Your task to perform on an android device: Do I have any events this weekend? Image 0: 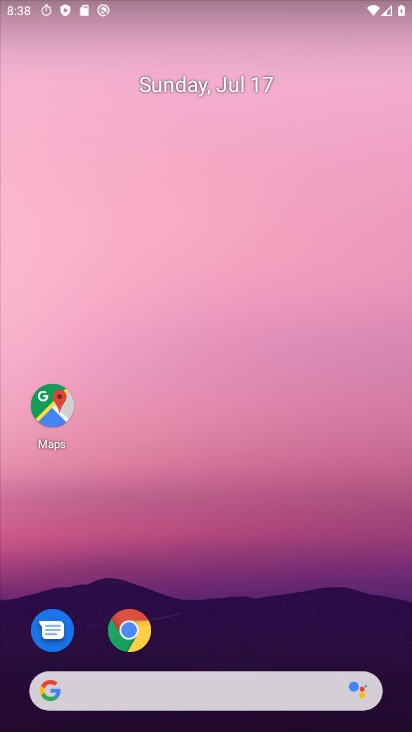
Step 0: click (120, 692)
Your task to perform on an android device: Do I have any events this weekend? Image 1: 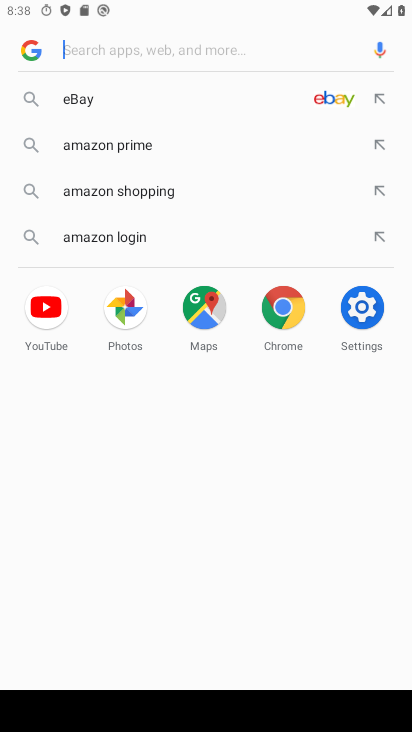
Step 1: type "Do I have any events this weekend?"
Your task to perform on an android device: Do I have any events this weekend? Image 2: 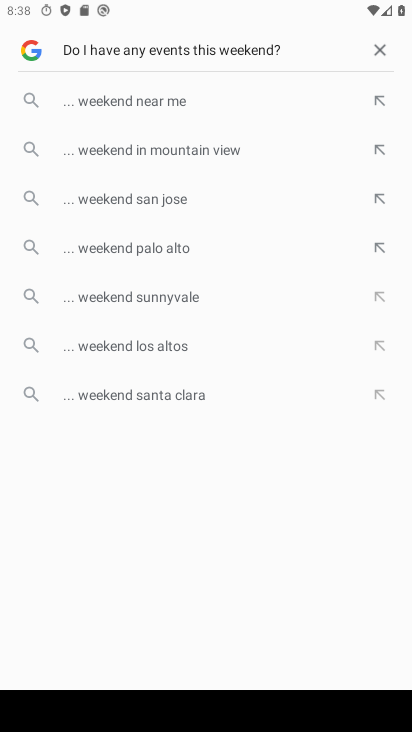
Step 2: type ""
Your task to perform on an android device: Do I have any events this weekend? Image 3: 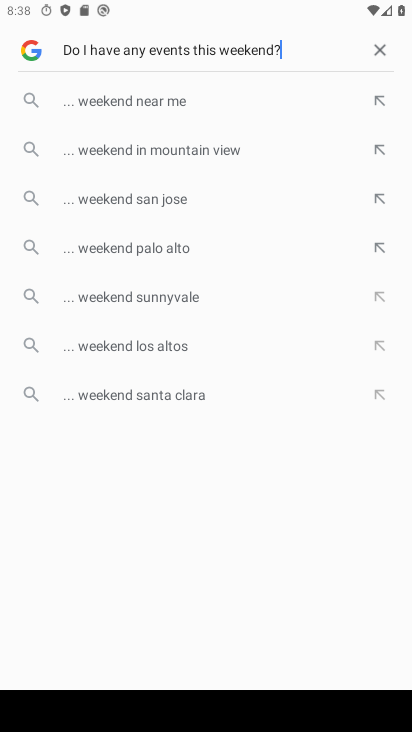
Step 3: type ""
Your task to perform on an android device: Do I have any events this weekend? Image 4: 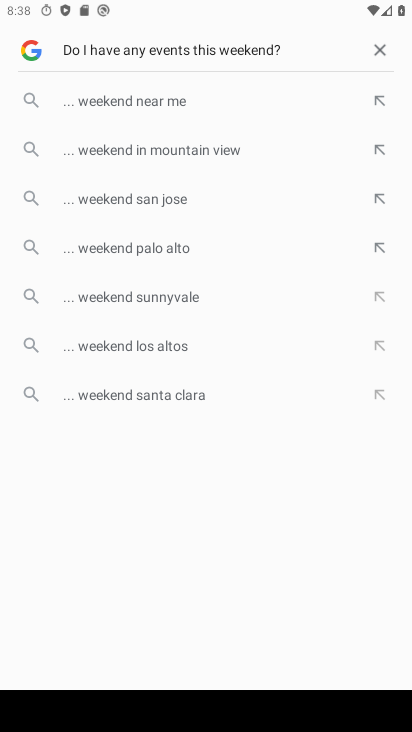
Step 4: press home button
Your task to perform on an android device: Do I have any events this weekend? Image 5: 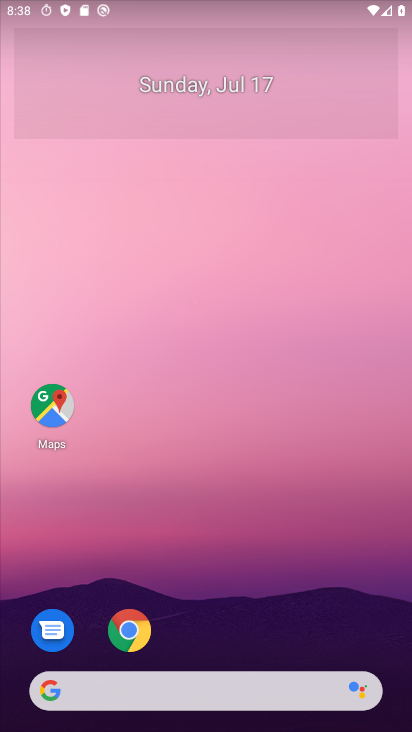
Step 5: drag from (38, 717) to (273, 6)
Your task to perform on an android device: Do I have any events this weekend? Image 6: 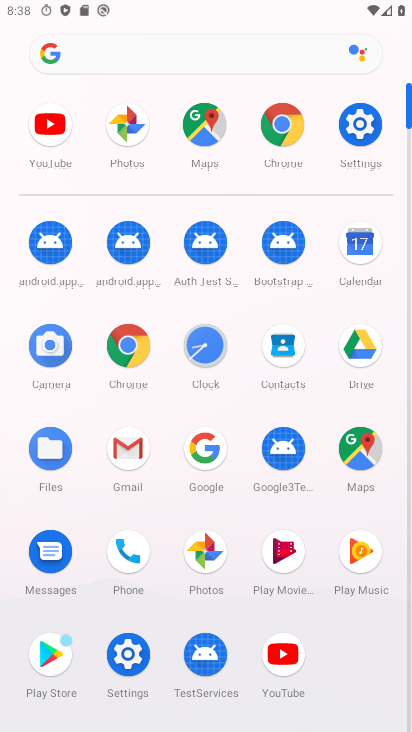
Step 6: click (373, 253)
Your task to perform on an android device: Do I have any events this weekend? Image 7: 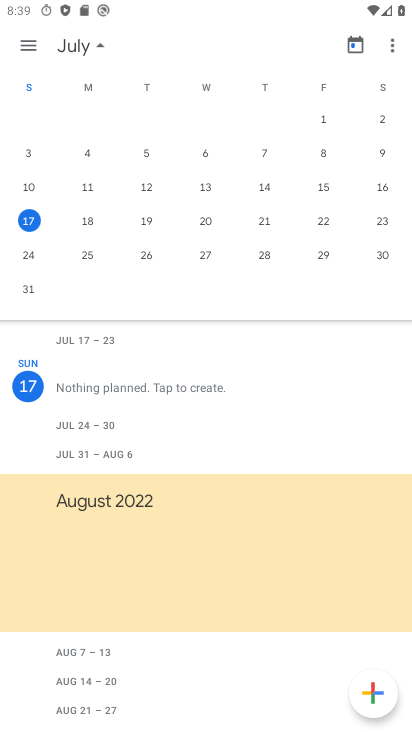
Step 7: task complete